Your task to perform on an android device: toggle airplane mode Image 0: 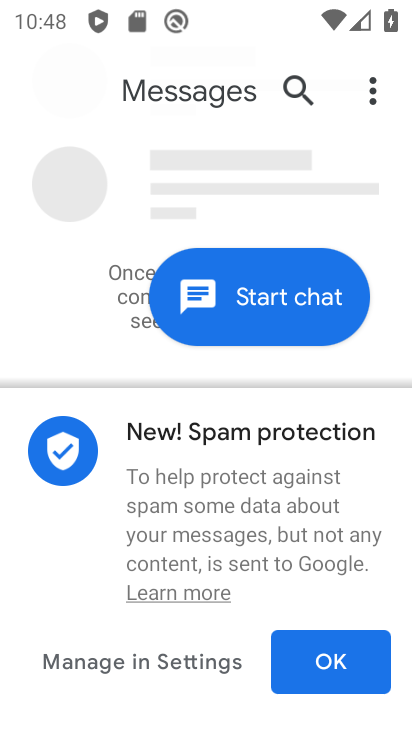
Step 0: press home button
Your task to perform on an android device: toggle airplane mode Image 1: 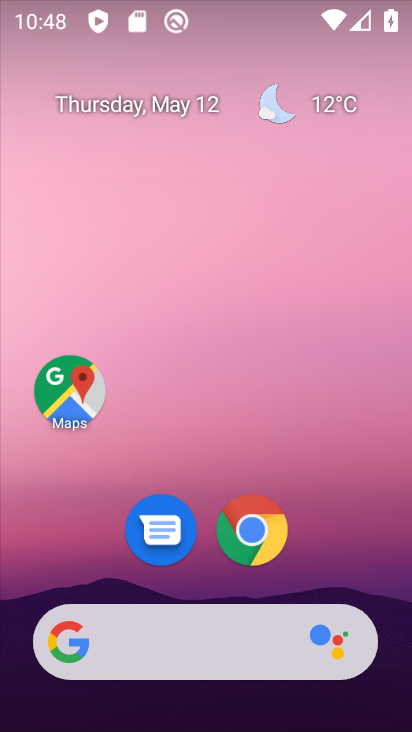
Step 1: drag from (196, 637) to (347, 8)
Your task to perform on an android device: toggle airplane mode Image 2: 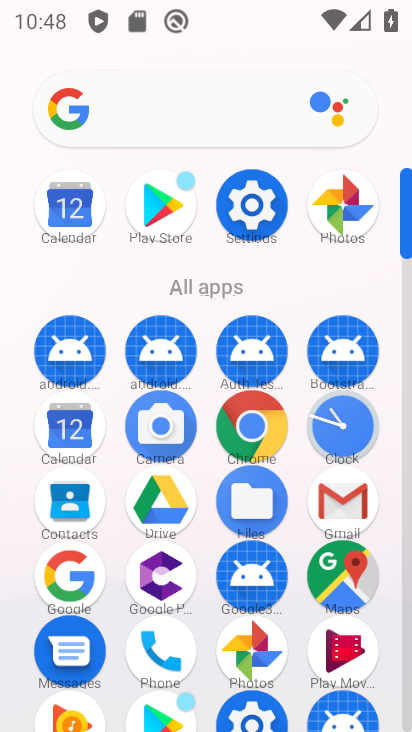
Step 2: click (256, 196)
Your task to perform on an android device: toggle airplane mode Image 3: 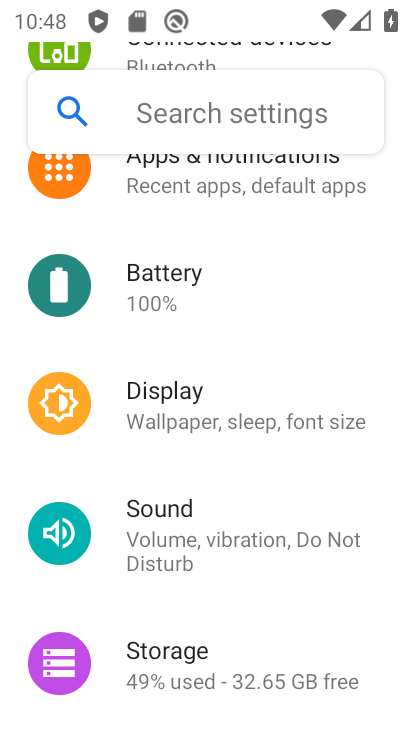
Step 3: drag from (291, 207) to (168, 611)
Your task to perform on an android device: toggle airplane mode Image 4: 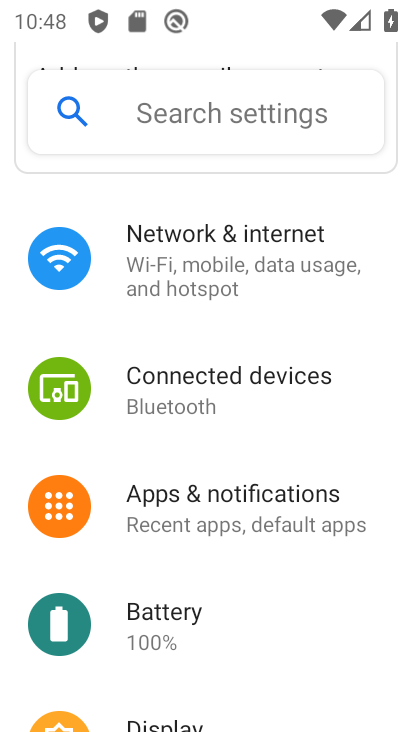
Step 4: click (272, 232)
Your task to perform on an android device: toggle airplane mode Image 5: 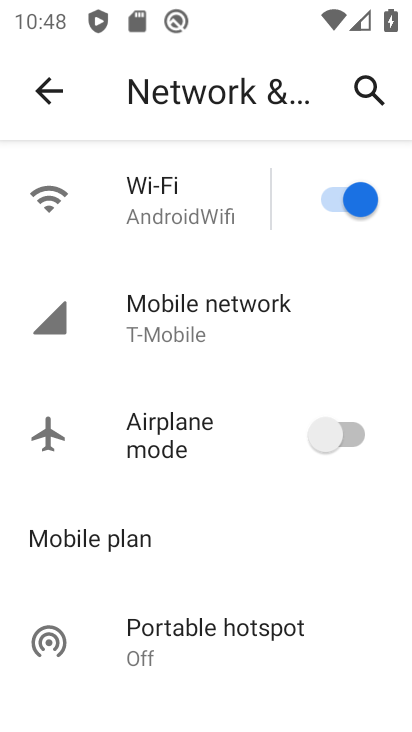
Step 5: click (351, 434)
Your task to perform on an android device: toggle airplane mode Image 6: 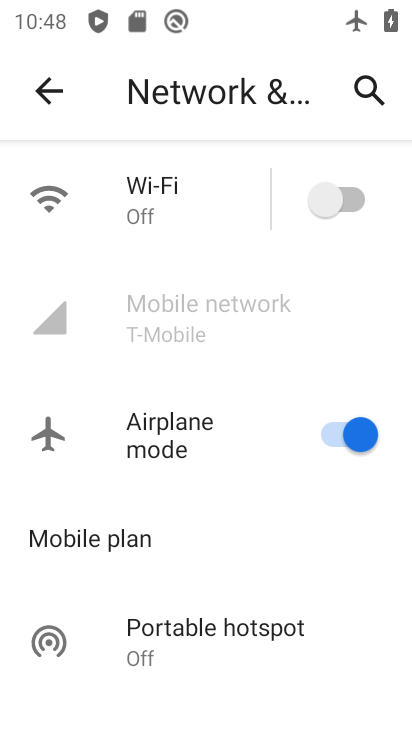
Step 6: task complete